Your task to perform on an android device: Show me recent news Image 0: 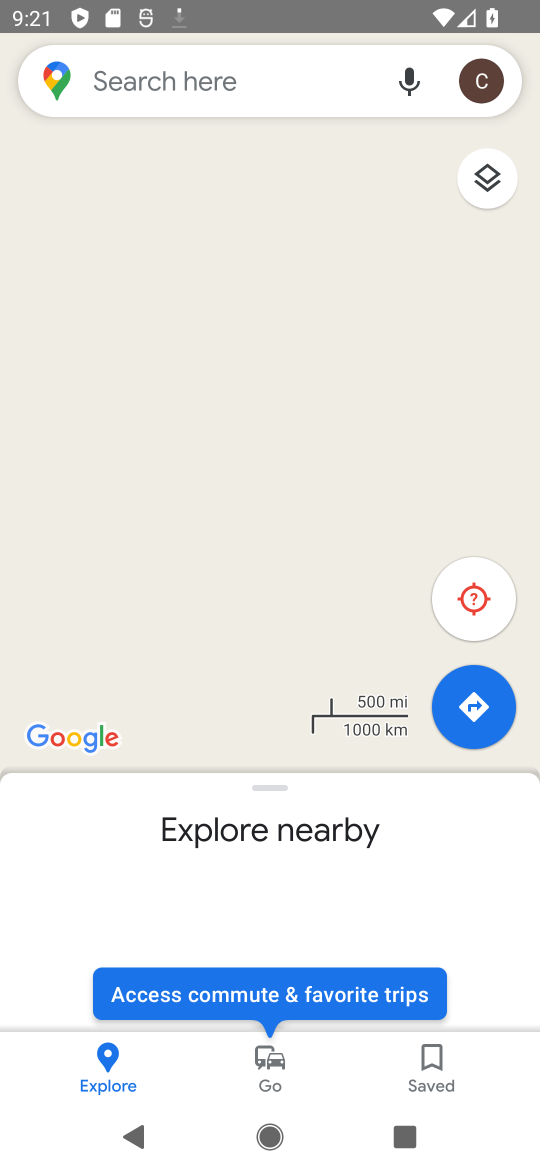
Step 0: press home button
Your task to perform on an android device: Show me recent news Image 1: 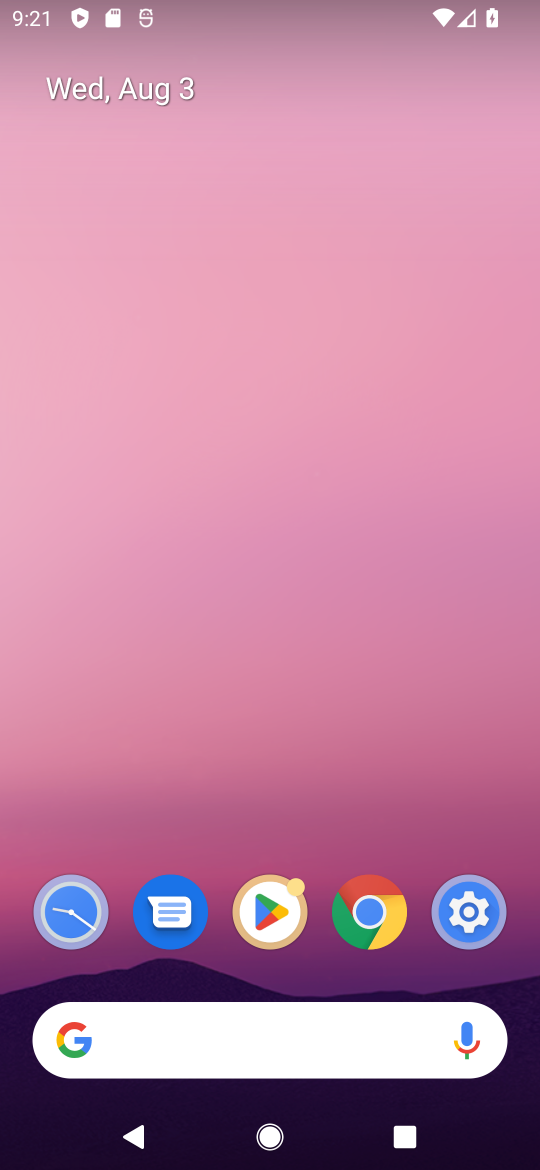
Step 1: drag from (361, 679) to (316, 0)
Your task to perform on an android device: Show me recent news Image 2: 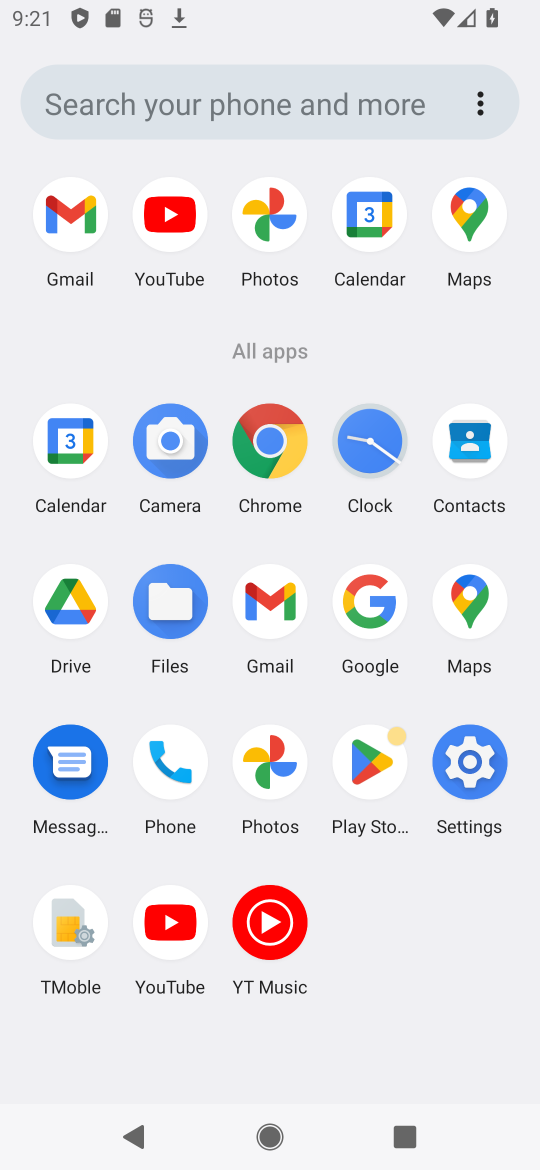
Step 2: click (276, 436)
Your task to perform on an android device: Show me recent news Image 3: 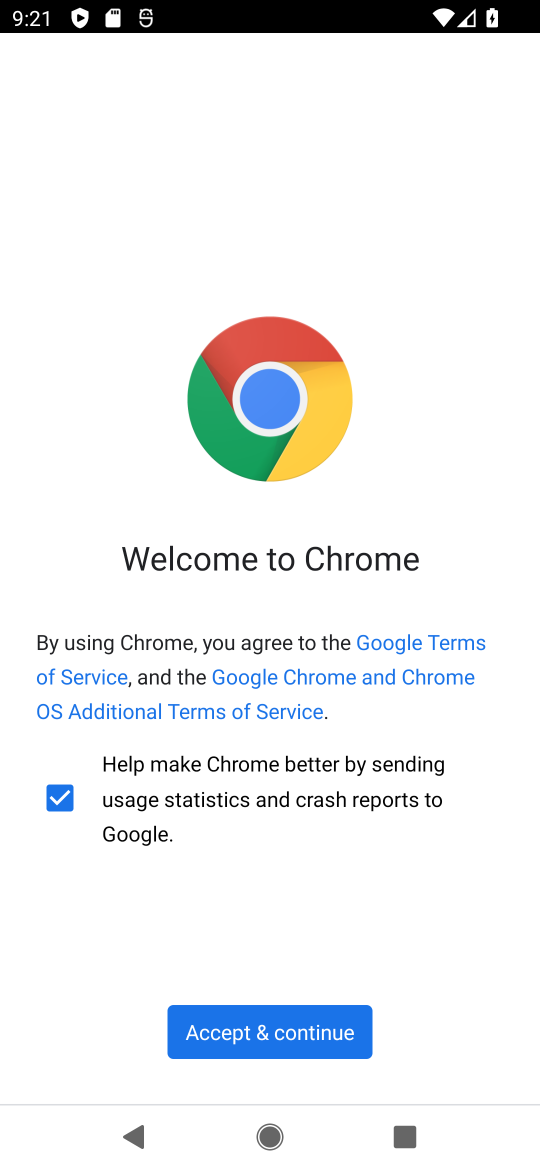
Step 3: click (217, 1037)
Your task to perform on an android device: Show me recent news Image 4: 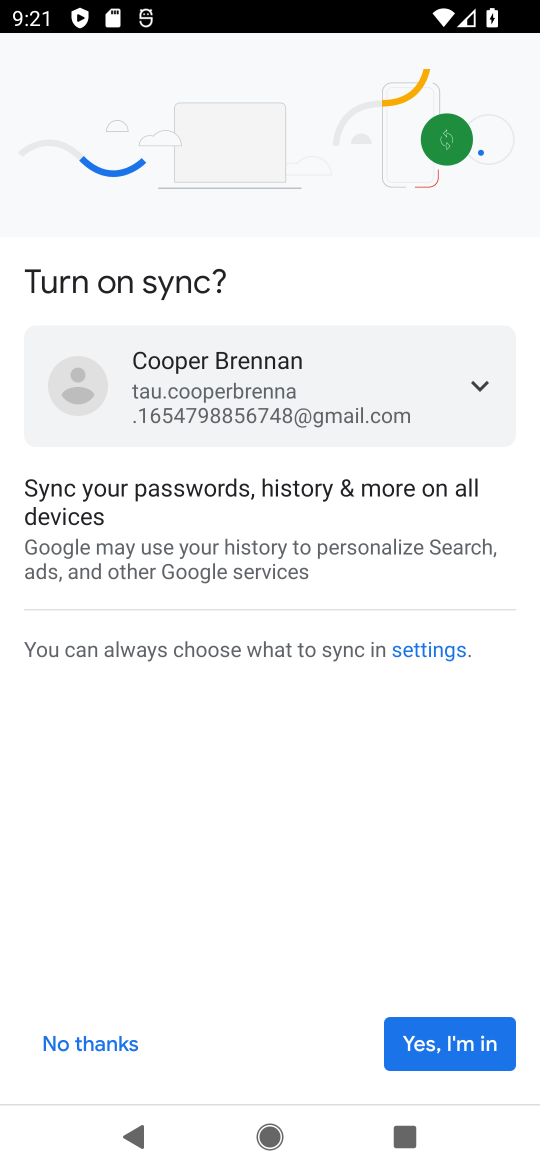
Step 4: click (130, 1041)
Your task to perform on an android device: Show me recent news Image 5: 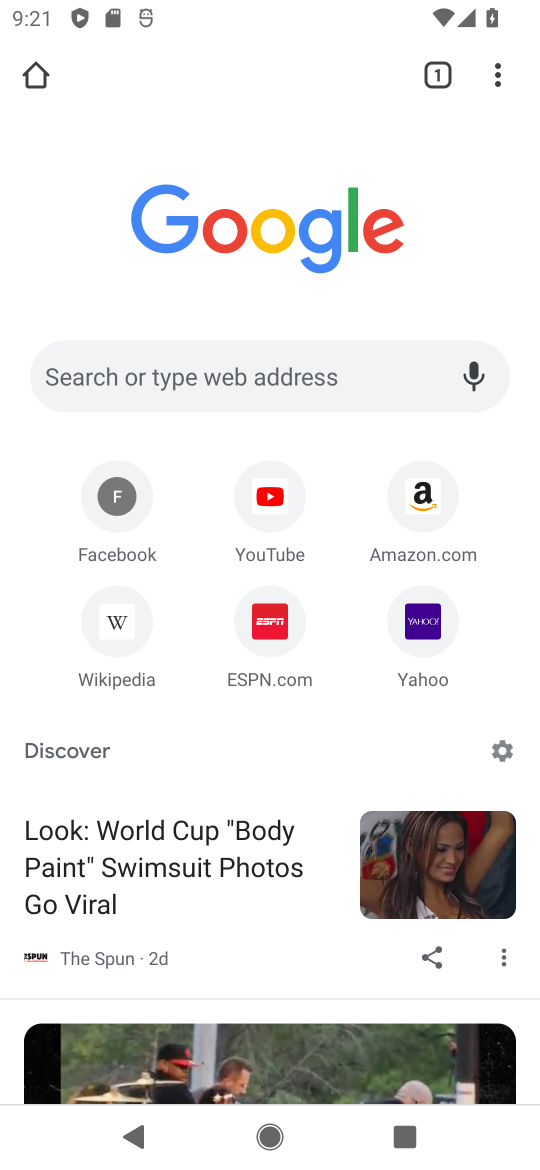
Step 5: task complete